Your task to perform on an android device: open app "LinkedIn" (install if not already installed) Image 0: 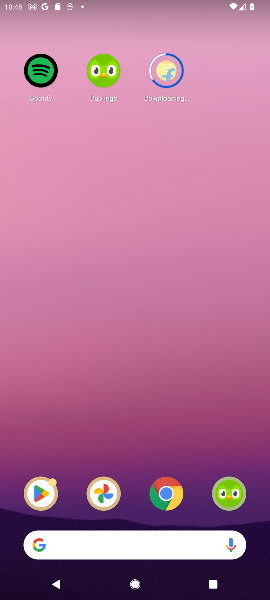
Step 0: click (37, 494)
Your task to perform on an android device: open app "LinkedIn" (install if not already installed) Image 1: 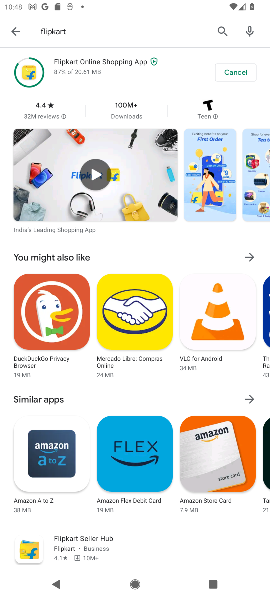
Step 1: click (223, 24)
Your task to perform on an android device: open app "LinkedIn" (install if not already installed) Image 2: 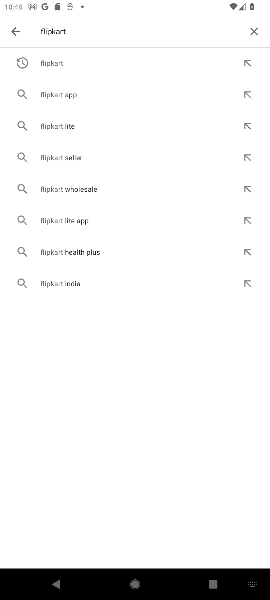
Step 2: click (255, 29)
Your task to perform on an android device: open app "LinkedIn" (install if not already installed) Image 3: 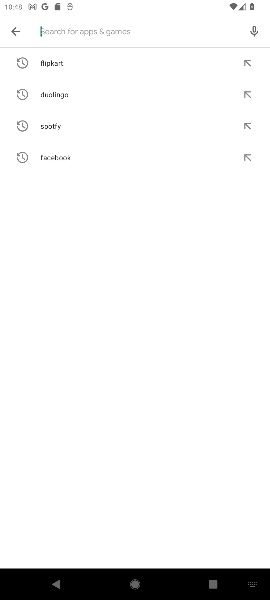
Step 3: type "inkedin'"
Your task to perform on an android device: open app "LinkedIn" (install if not already installed) Image 4: 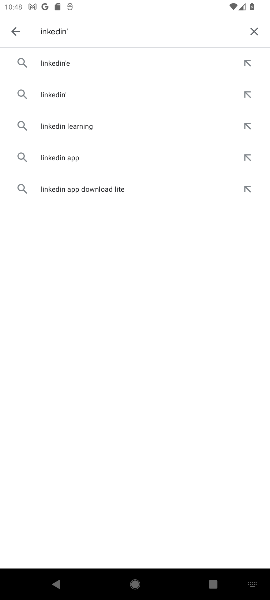
Step 4: click (58, 55)
Your task to perform on an android device: open app "LinkedIn" (install if not already installed) Image 5: 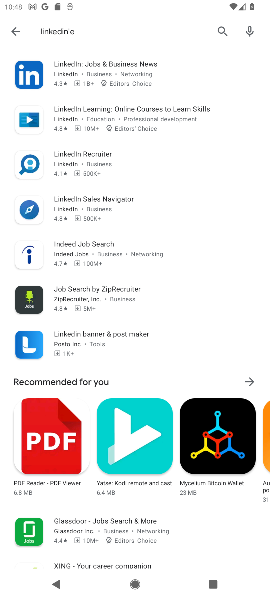
Step 5: click (135, 67)
Your task to perform on an android device: open app "LinkedIn" (install if not already installed) Image 6: 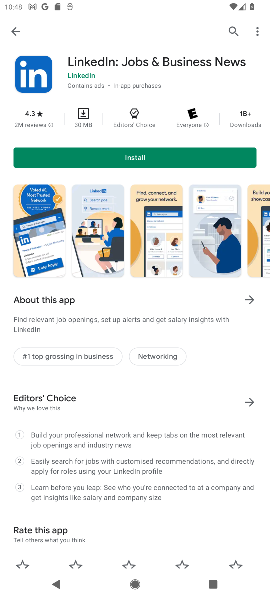
Step 6: click (130, 158)
Your task to perform on an android device: open app "LinkedIn" (install if not already installed) Image 7: 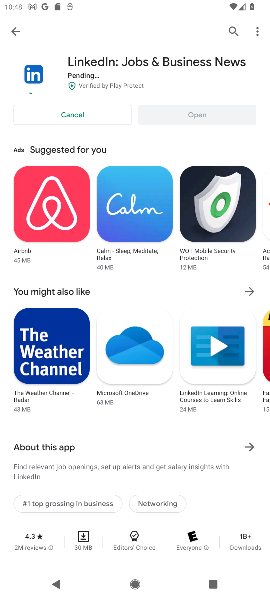
Step 7: task complete